Your task to perform on an android device: Go to calendar. Show me events next week Image 0: 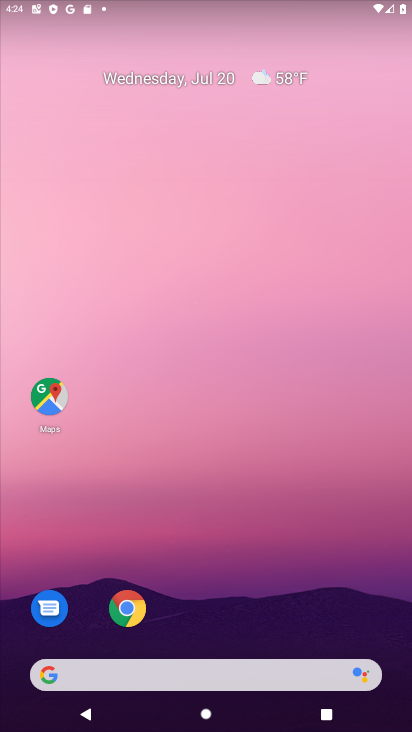
Step 0: drag from (193, 657) to (245, 17)
Your task to perform on an android device: Go to calendar. Show me events next week Image 1: 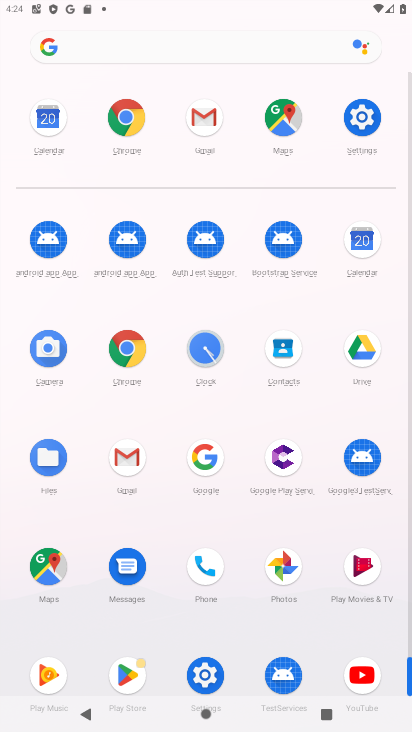
Step 1: click (358, 119)
Your task to perform on an android device: Go to calendar. Show me events next week Image 2: 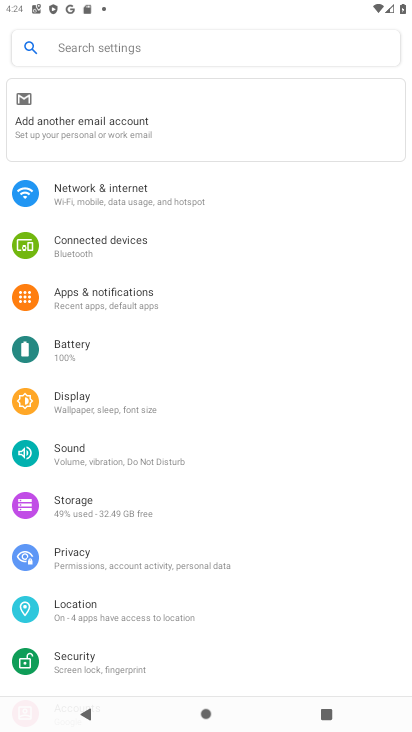
Step 2: press home button
Your task to perform on an android device: Go to calendar. Show me events next week Image 3: 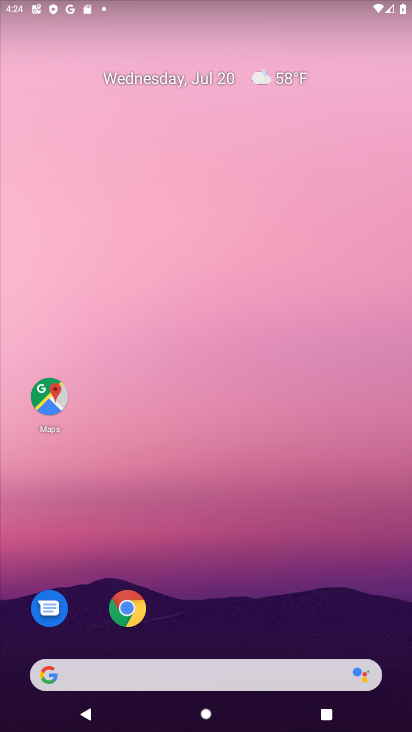
Step 3: drag from (221, 657) to (255, 117)
Your task to perform on an android device: Go to calendar. Show me events next week Image 4: 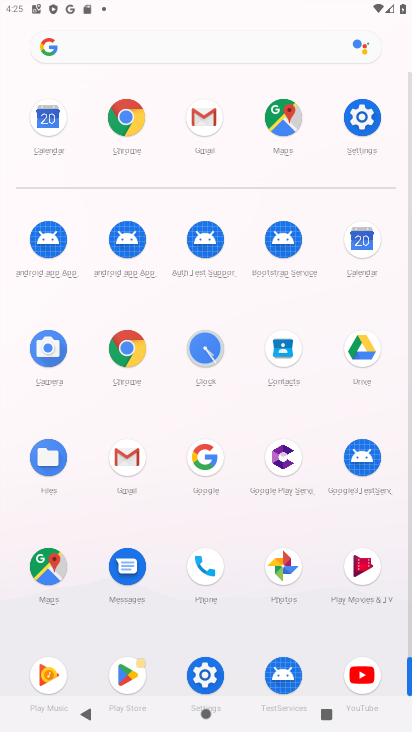
Step 4: click (370, 251)
Your task to perform on an android device: Go to calendar. Show me events next week Image 5: 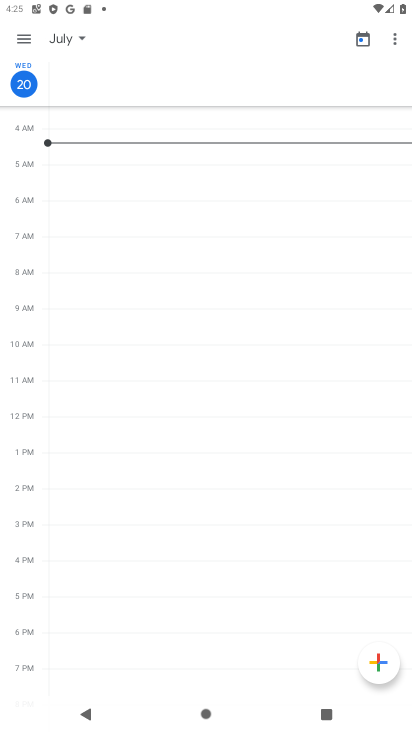
Step 5: click (24, 37)
Your task to perform on an android device: Go to calendar. Show me events next week Image 6: 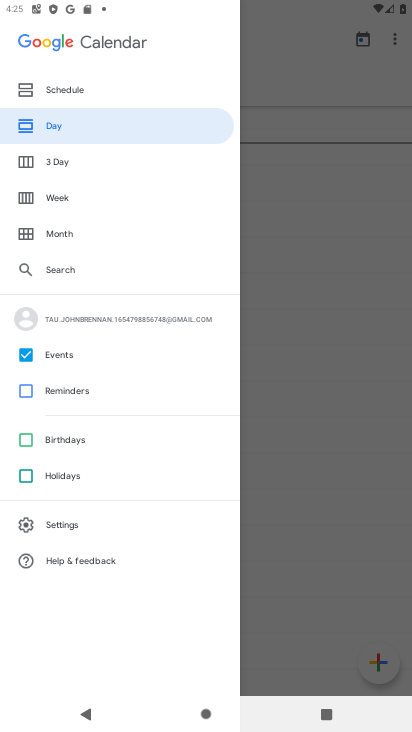
Step 6: click (58, 200)
Your task to perform on an android device: Go to calendar. Show me events next week Image 7: 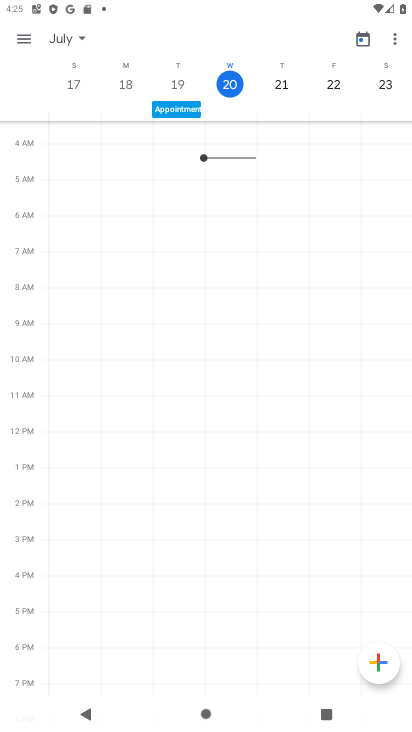
Step 7: task complete